Your task to perform on an android device: change timer sound Image 0: 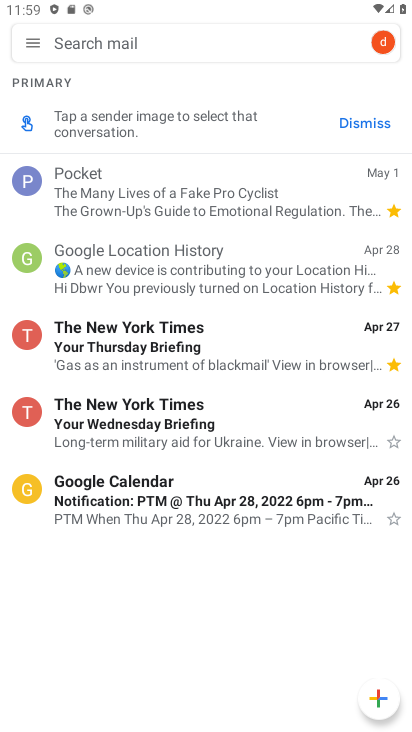
Step 0: press home button
Your task to perform on an android device: change timer sound Image 1: 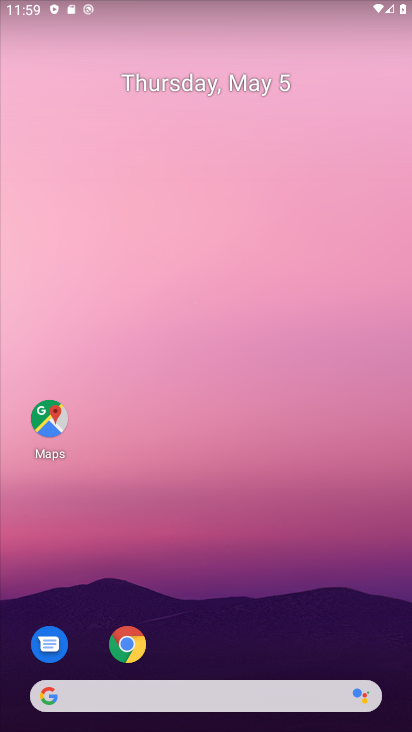
Step 1: drag from (37, 510) to (241, 204)
Your task to perform on an android device: change timer sound Image 2: 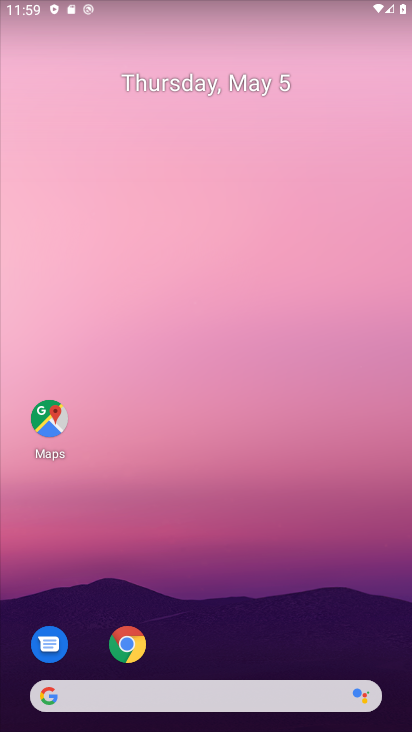
Step 2: drag from (26, 556) to (239, 169)
Your task to perform on an android device: change timer sound Image 3: 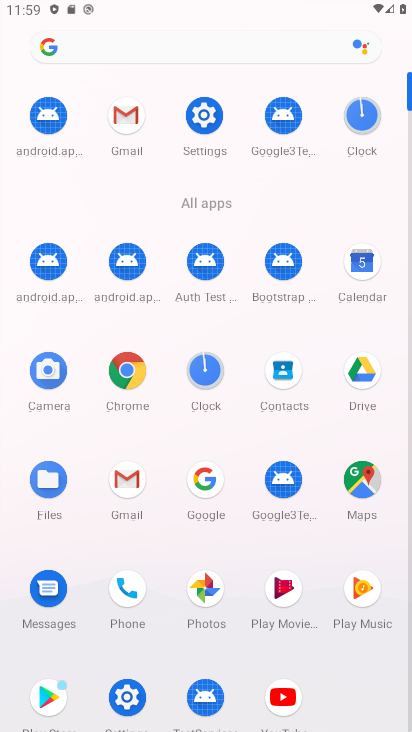
Step 3: click (365, 95)
Your task to perform on an android device: change timer sound Image 4: 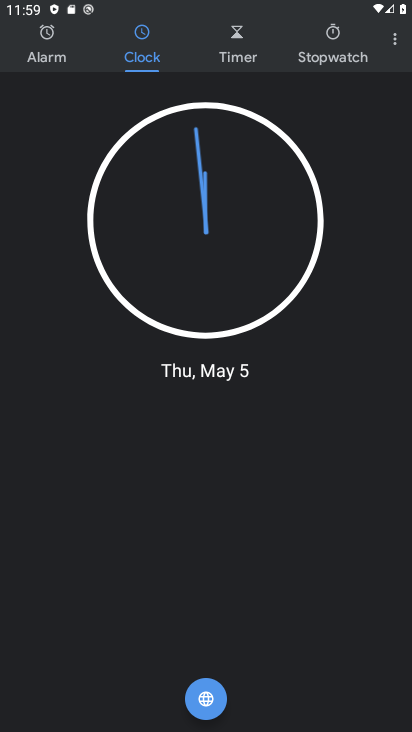
Step 4: click (388, 51)
Your task to perform on an android device: change timer sound Image 5: 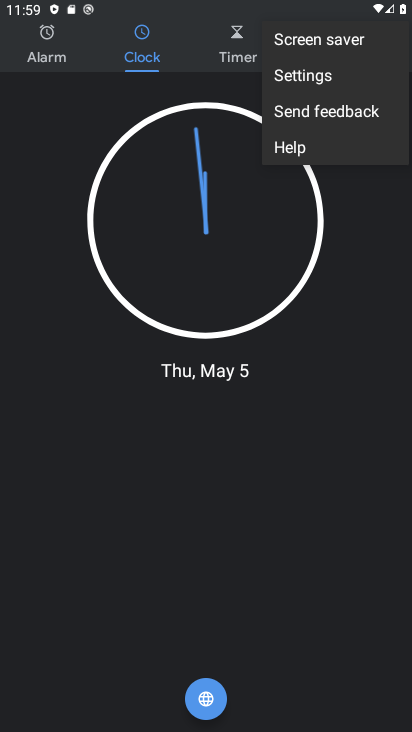
Step 5: click (336, 89)
Your task to perform on an android device: change timer sound Image 6: 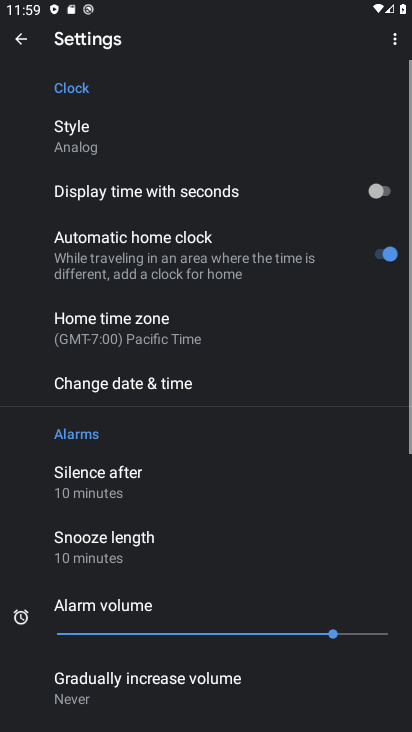
Step 6: drag from (198, 612) to (294, 217)
Your task to perform on an android device: change timer sound Image 7: 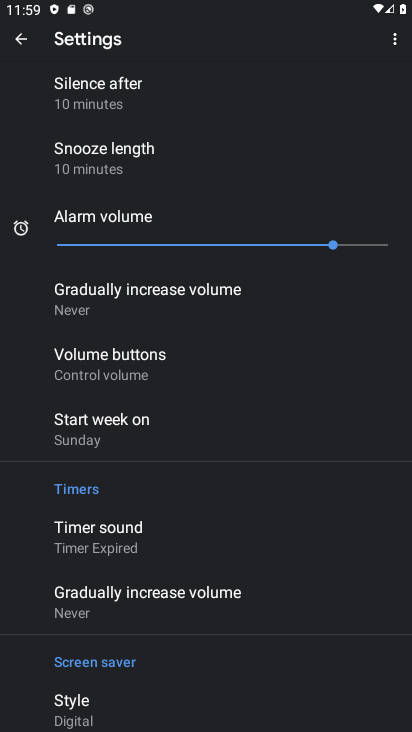
Step 7: click (152, 537)
Your task to perform on an android device: change timer sound Image 8: 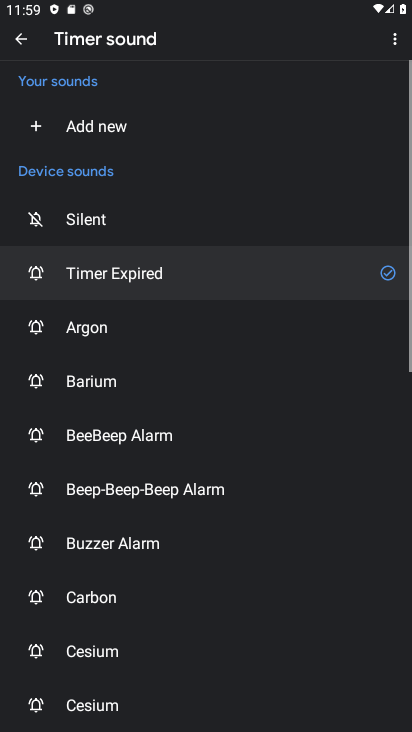
Step 8: click (110, 341)
Your task to perform on an android device: change timer sound Image 9: 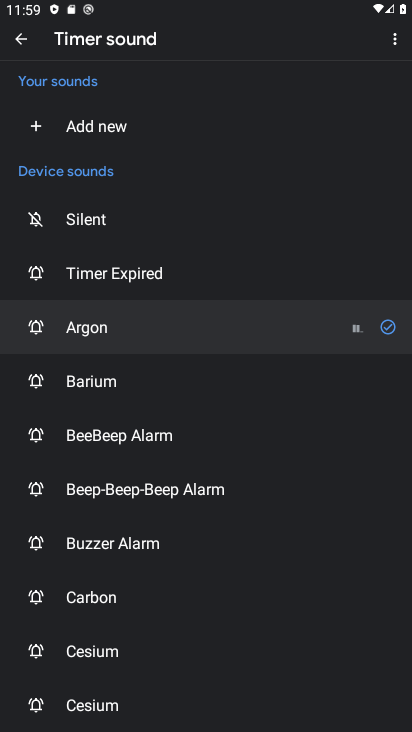
Step 9: task complete